Your task to perform on an android device: turn off sleep mode Image 0: 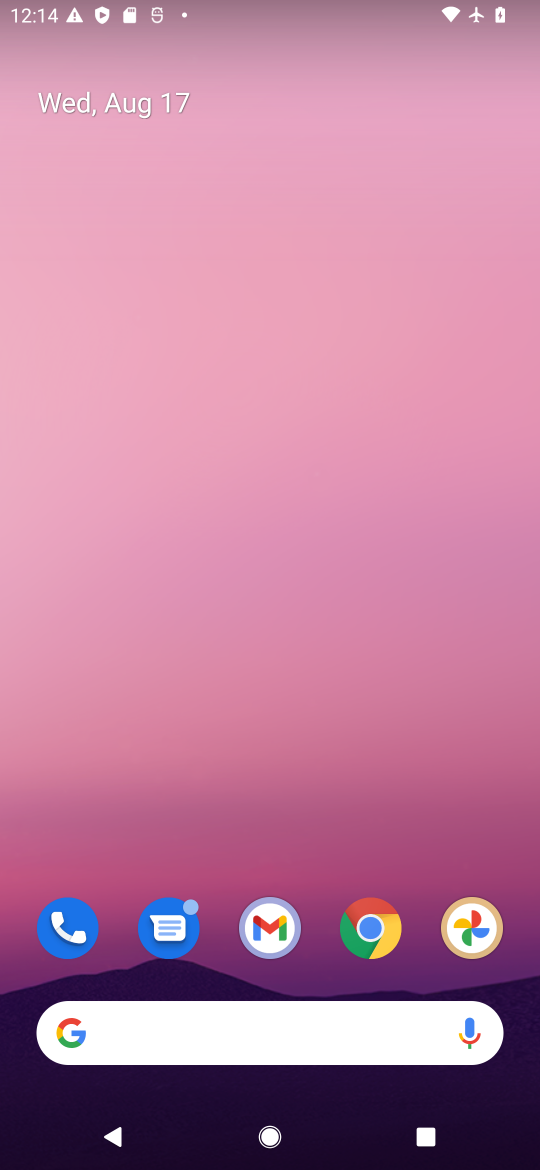
Step 0: drag from (269, 845) to (269, 149)
Your task to perform on an android device: turn off sleep mode Image 1: 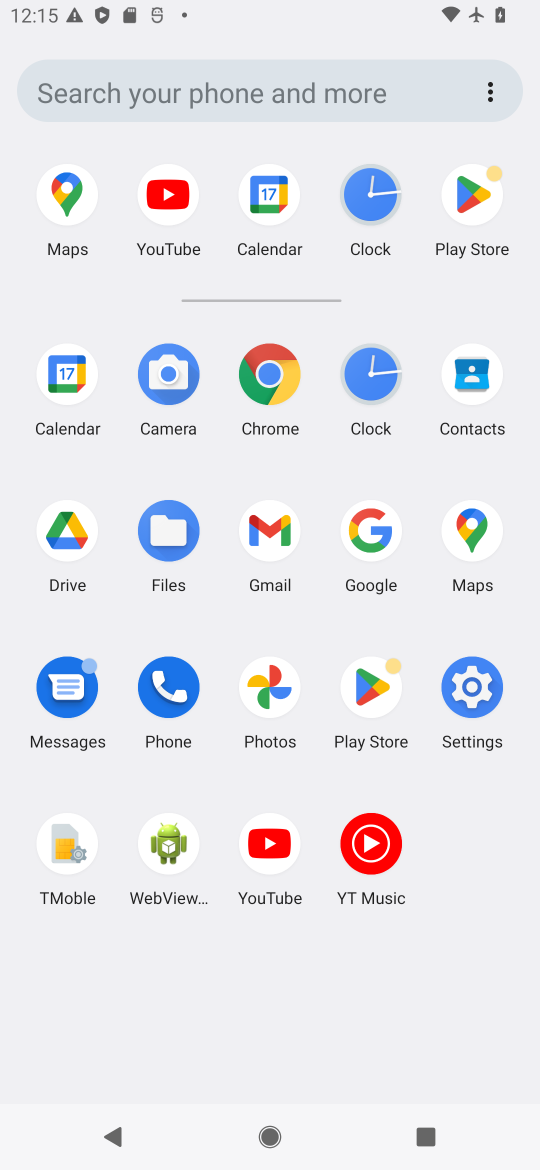
Step 1: click (479, 679)
Your task to perform on an android device: turn off sleep mode Image 2: 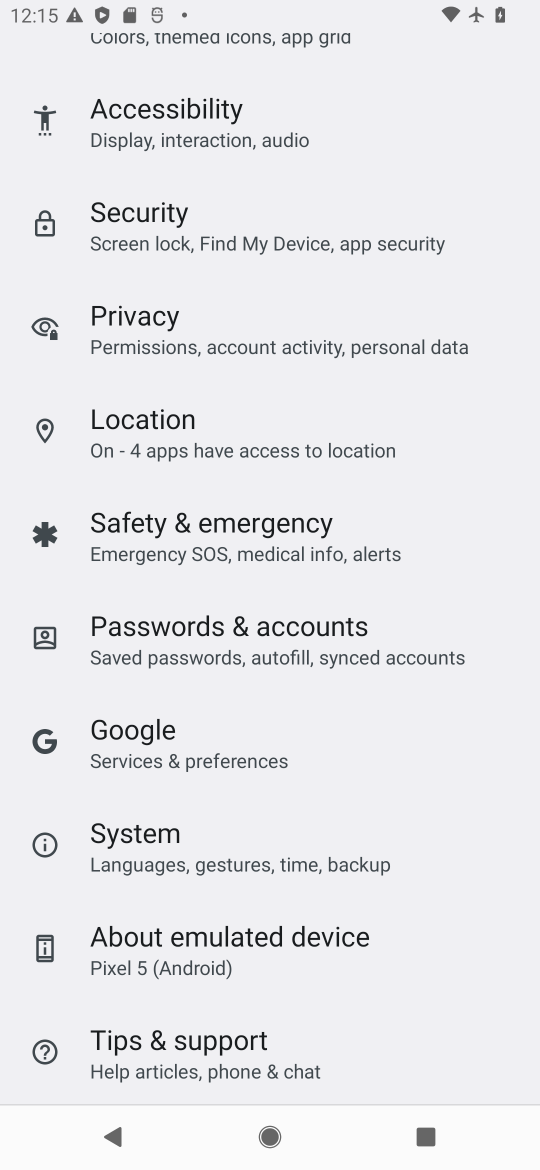
Step 2: drag from (318, 463) to (322, 868)
Your task to perform on an android device: turn off sleep mode Image 3: 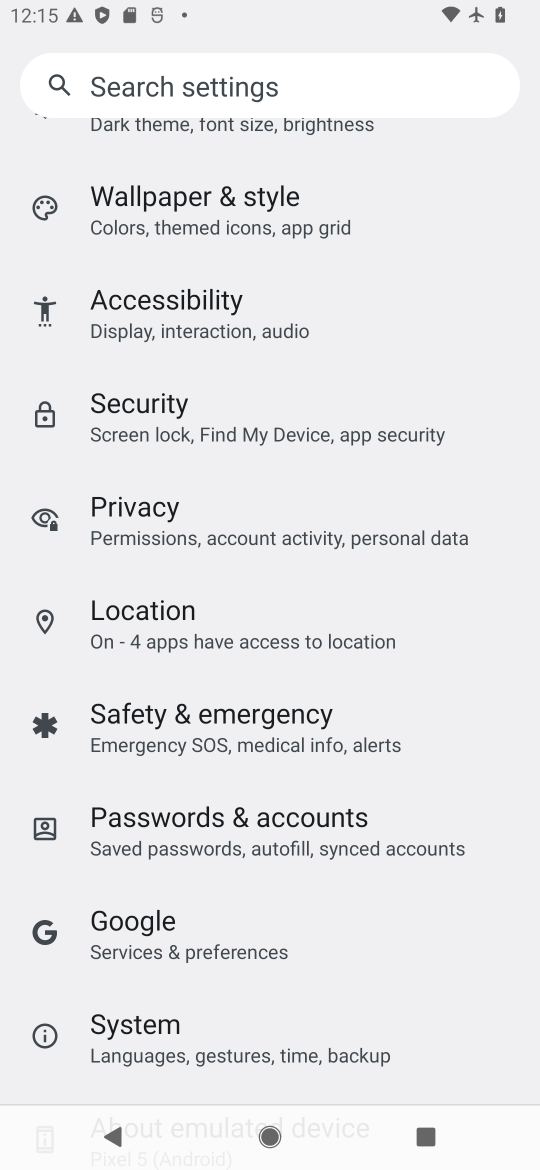
Step 3: drag from (269, 405) to (269, 869)
Your task to perform on an android device: turn off sleep mode Image 4: 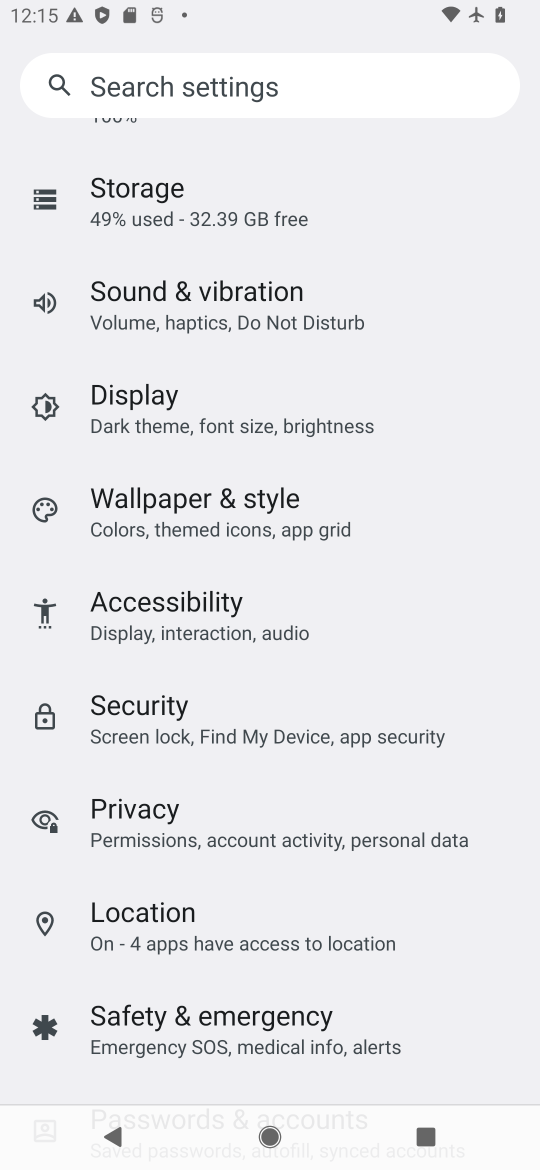
Step 4: drag from (234, 391) to (241, 842)
Your task to perform on an android device: turn off sleep mode Image 5: 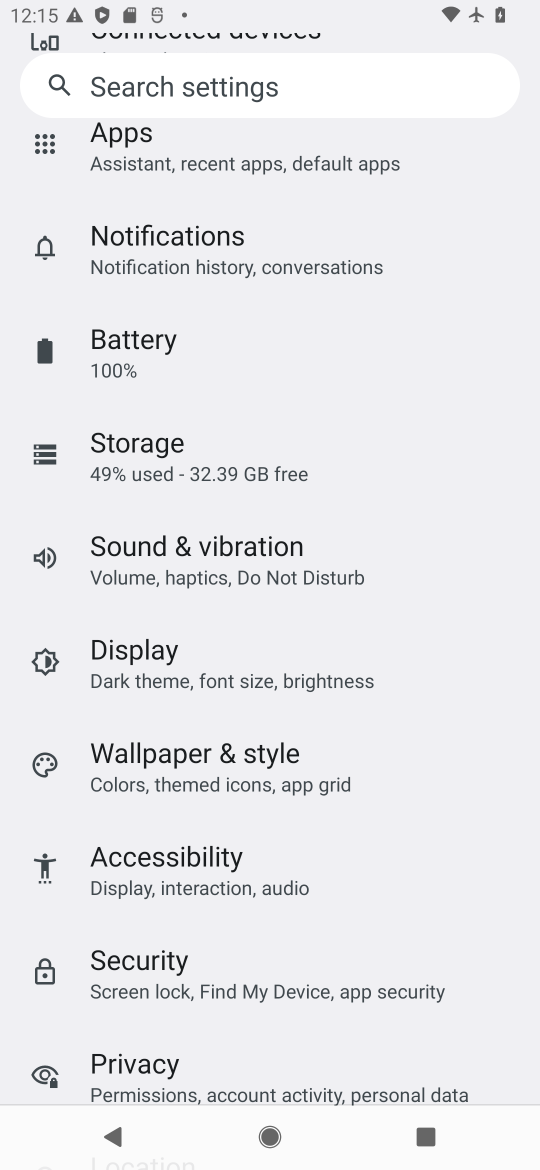
Step 5: drag from (200, 294) to (222, 797)
Your task to perform on an android device: turn off sleep mode Image 6: 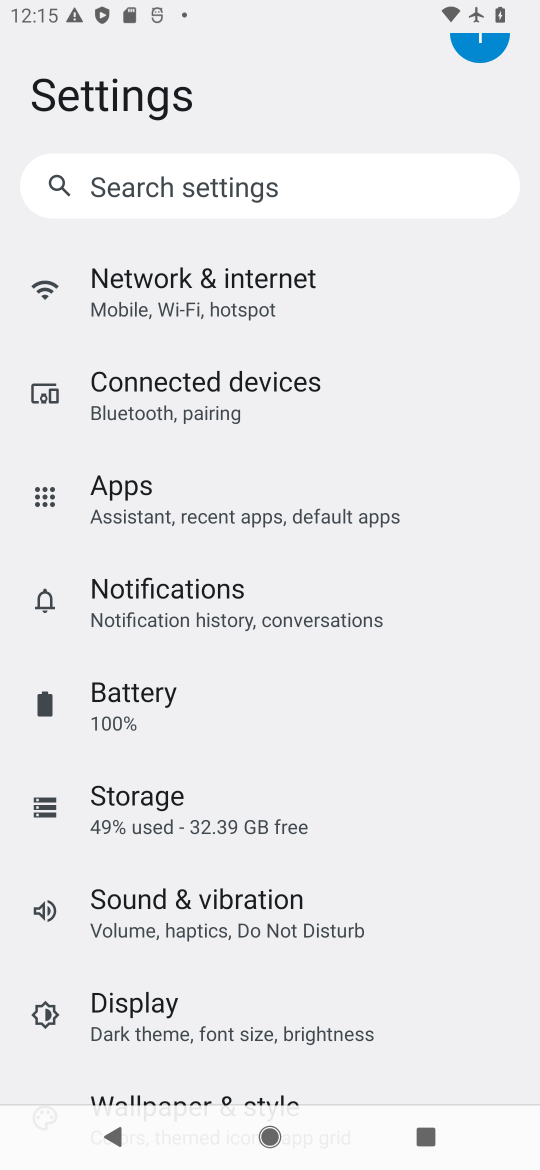
Step 6: click (189, 998)
Your task to perform on an android device: turn off sleep mode Image 7: 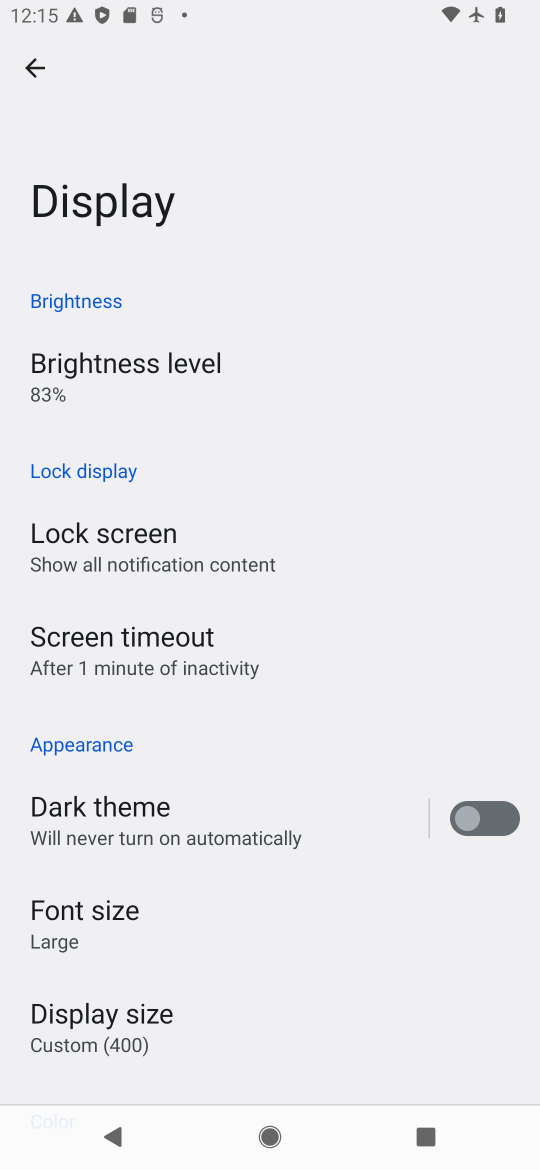
Step 7: click (195, 637)
Your task to perform on an android device: turn off sleep mode Image 8: 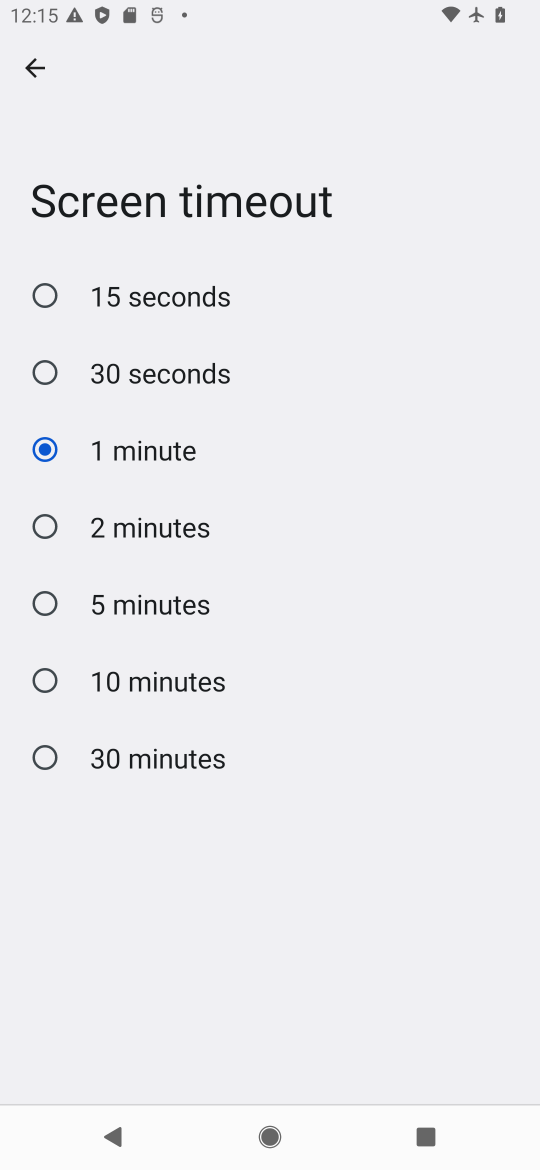
Step 8: click (144, 652)
Your task to perform on an android device: turn off sleep mode Image 9: 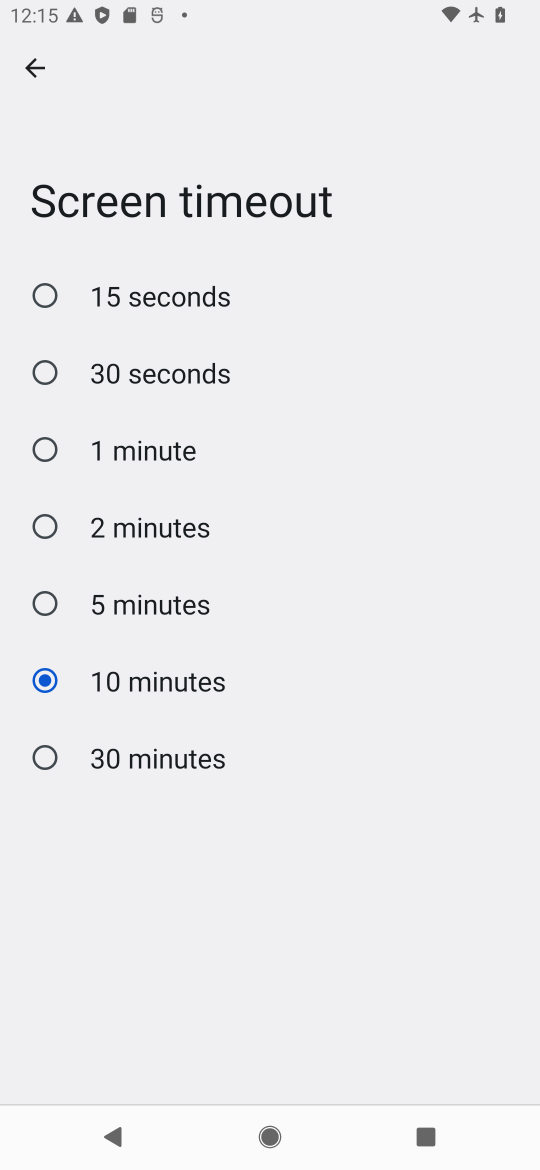
Step 9: task complete